Your task to perform on an android device: What is the recent news? Image 0: 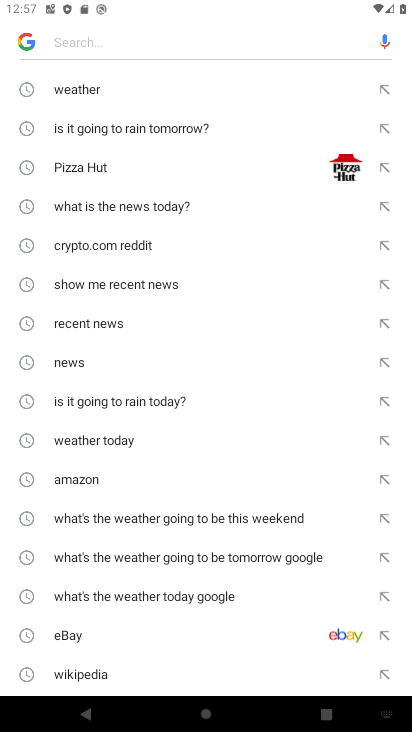
Step 0: click (132, 355)
Your task to perform on an android device: What is the recent news? Image 1: 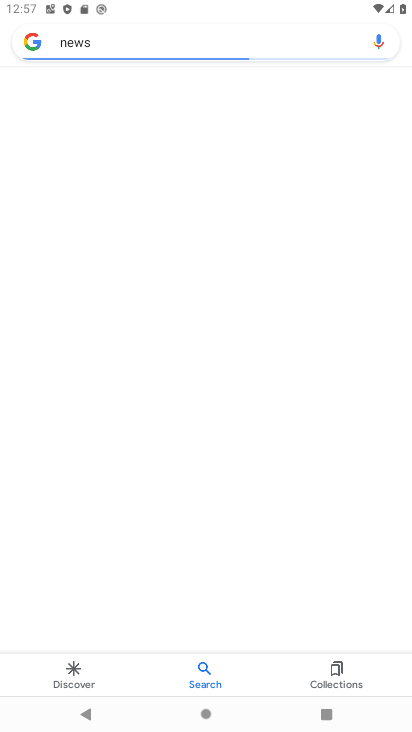
Step 1: task complete